Your task to perform on an android device: What's on my calendar tomorrow? Image 0: 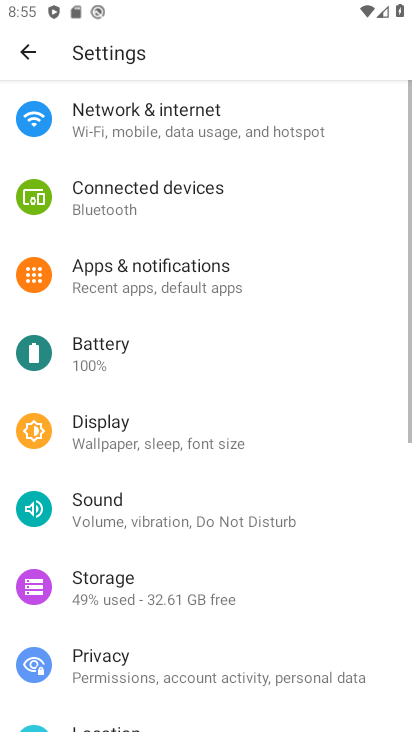
Step 0: press home button
Your task to perform on an android device: What's on my calendar tomorrow? Image 1: 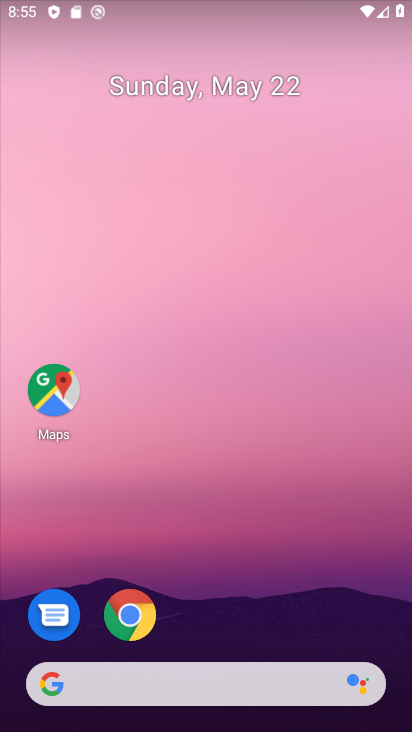
Step 1: drag from (246, 591) to (263, 176)
Your task to perform on an android device: What's on my calendar tomorrow? Image 2: 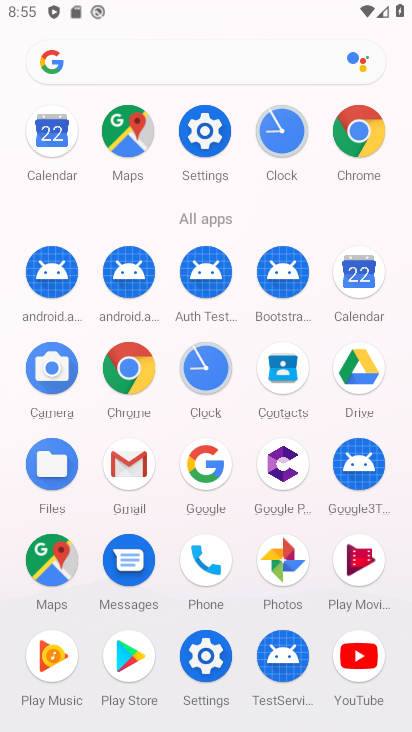
Step 2: click (369, 264)
Your task to perform on an android device: What's on my calendar tomorrow? Image 3: 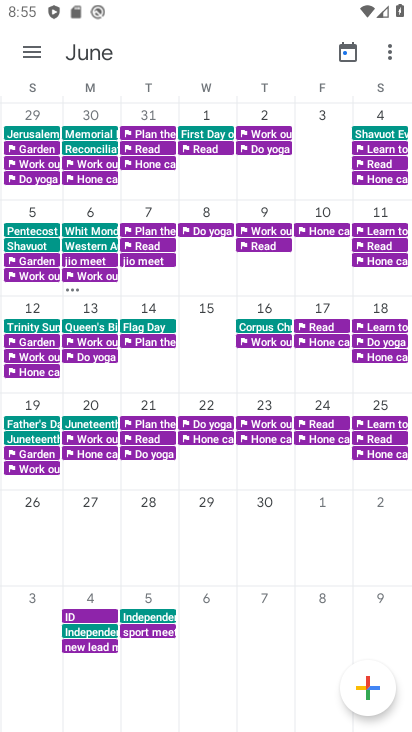
Step 3: click (29, 49)
Your task to perform on an android device: What's on my calendar tomorrow? Image 4: 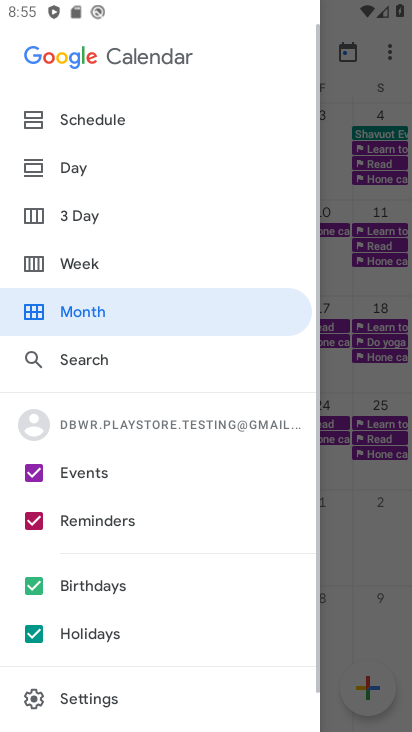
Step 4: click (372, 214)
Your task to perform on an android device: What's on my calendar tomorrow? Image 5: 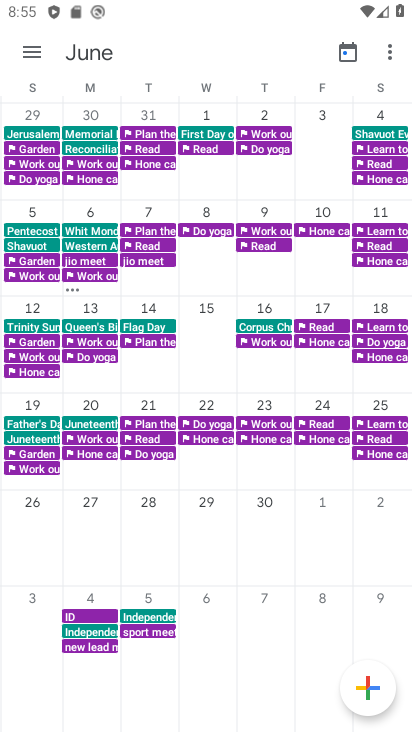
Step 5: drag from (58, 209) to (403, 207)
Your task to perform on an android device: What's on my calendar tomorrow? Image 6: 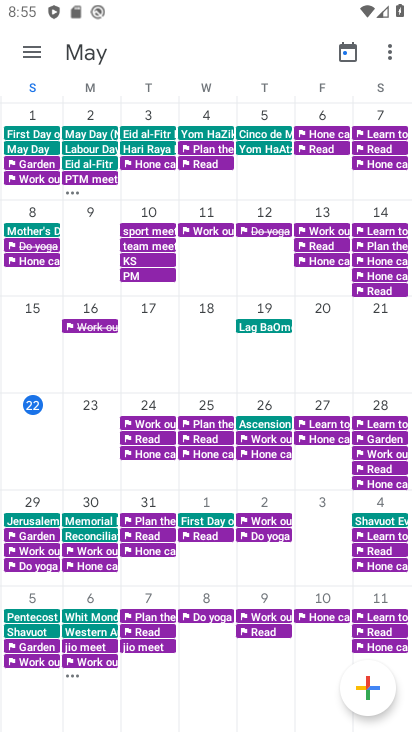
Step 6: click (153, 419)
Your task to perform on an android device: What's on my calendar tomorrow? Image 7: 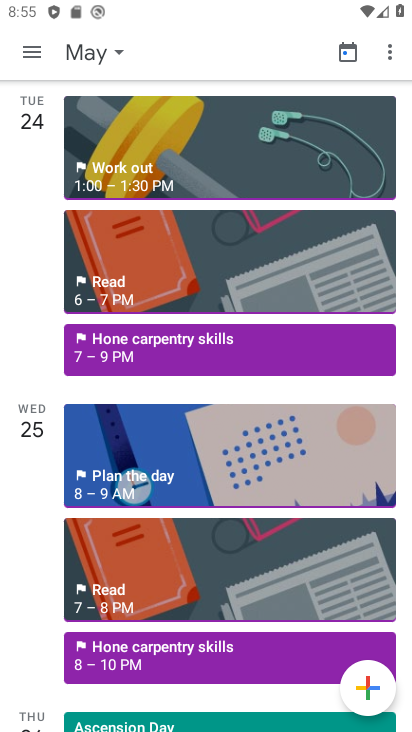
Step 7: task complete